Your task to perform on an android device: turn on notifications settings in the gmail app Image 0: 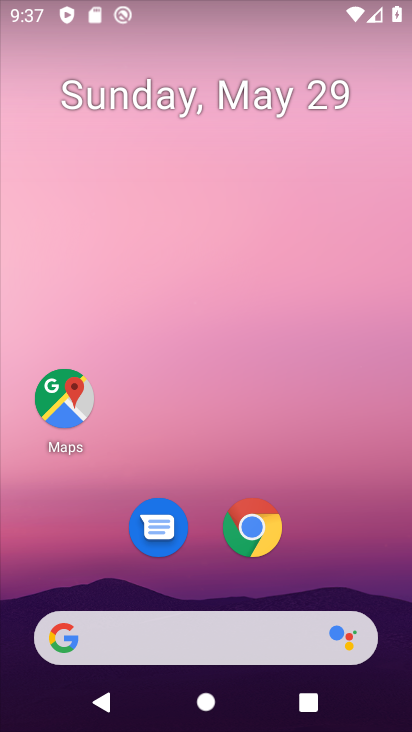
Step 0: drag from (345, 563) to (318, 102)
Your task to perform on an android device: turn on notifications settings in the gmail app Image 1: 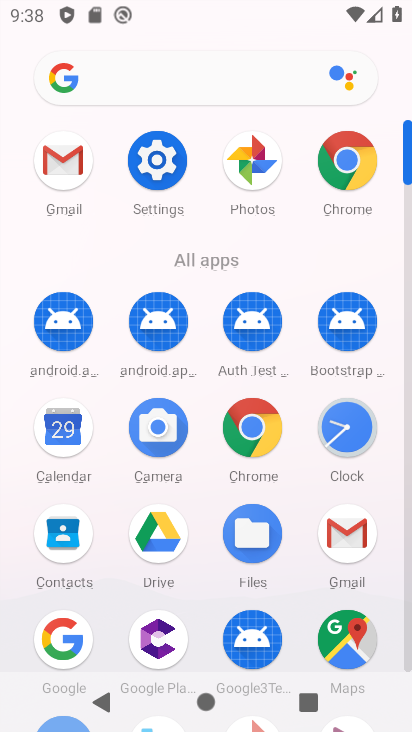
Step 1: click (81, 179)
Your task to perform on an android device: turn on notifications settings in the gmail app Image 2: 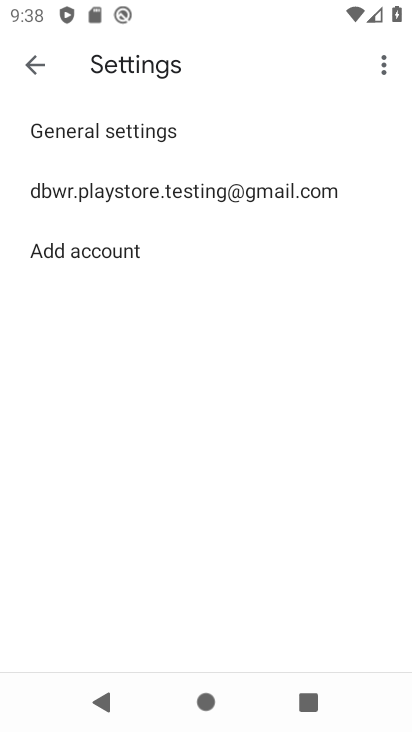
Step 2: click (82, 178)
Your task to perform on an android device: turn on notifications settings in the gmail app Image 3: 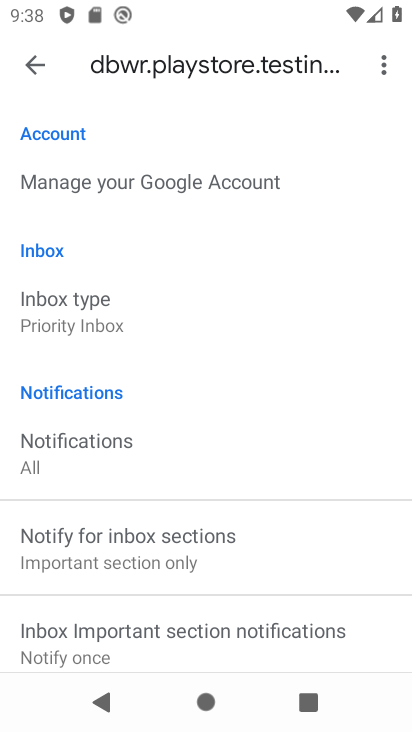
Step 3: drag from (230, 600) to (296, 156)
Your task to perform on an android device: turn on notifications settings in the gmail app Image 4: 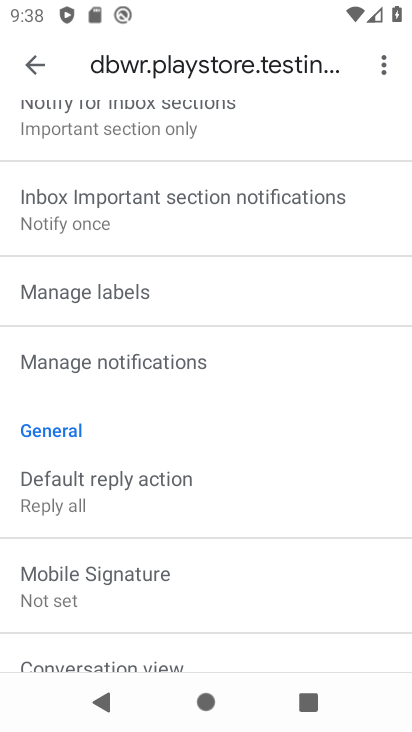
Step 4: click (157, 367)
Your task to perform on an android device: turn on notifications settings in the gmail app Image 5: 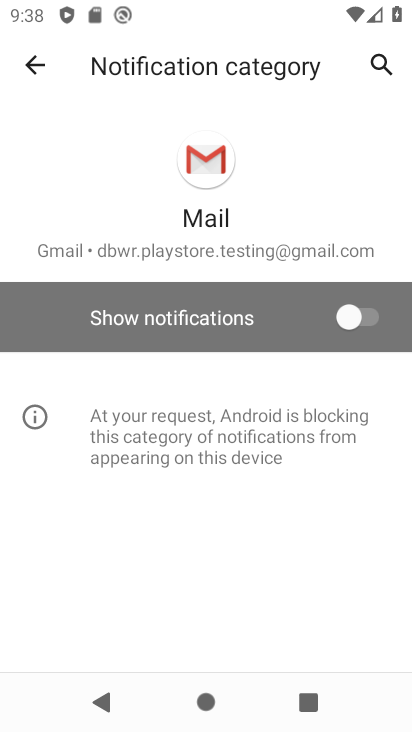
Step 5: click (325, 305)
Your task to perform on an android device: turn on notifications settings in the gmail app Image 6: 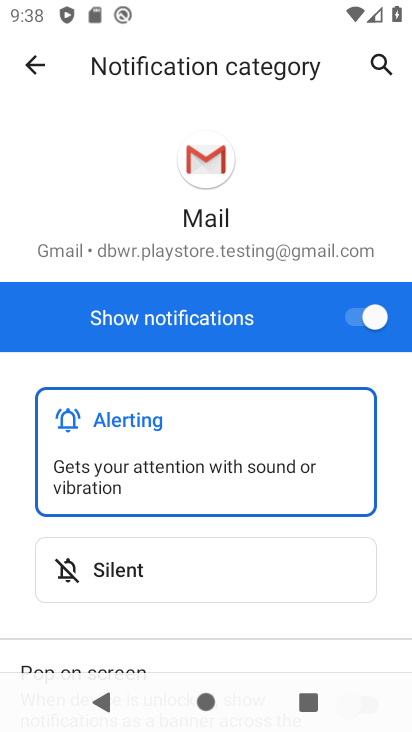
Step 6: task complete